Your task to perform on an android device: turn off javascript in the chrome app Image 0: 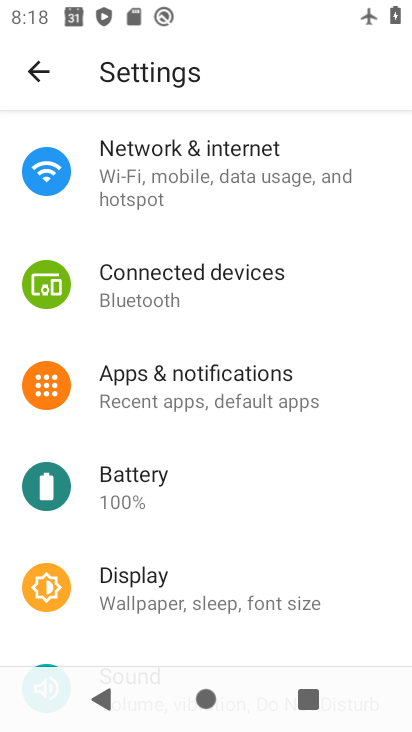
Step 0: press home button
Your task to perform on an android device: turn off javascript in the chrome app Image 1: 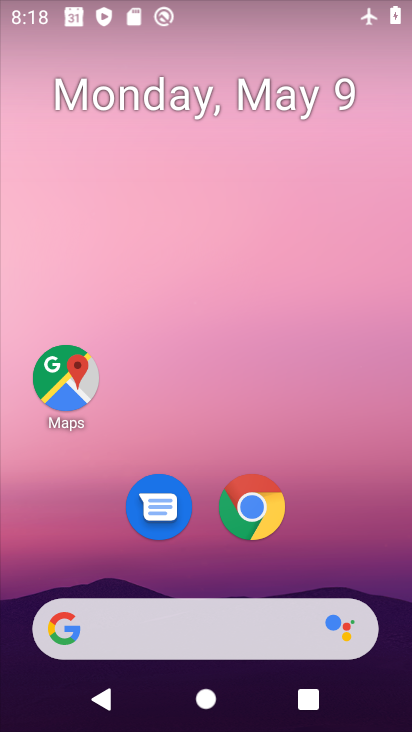
Step 1: drag from (209, 589) to (215, 46)
Your task to perform on an android device: turn off javascript in the chrome app Image 2: 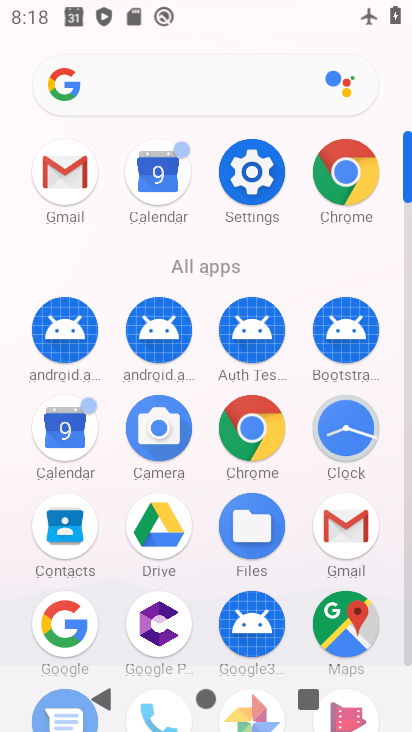
Step 2: click (335, 173)
Your task to perform on an android device: turn off javascript in the chrome app Image 3: 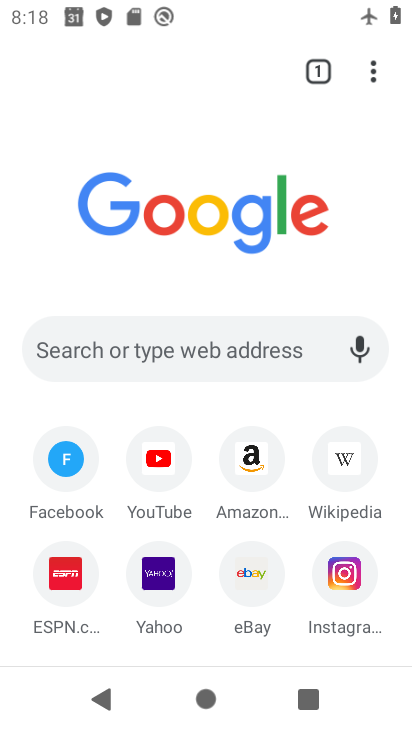
Step 3: click (364, 78)
Your task to perform on an android device: turn off javascript in the chrome app Image 4: 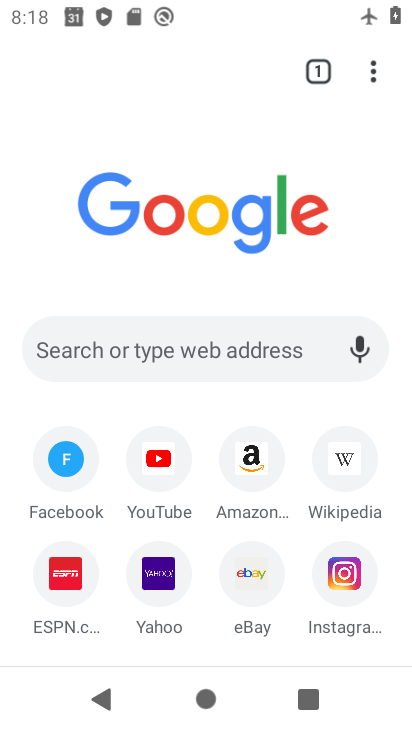
Step 4: drag from (363, 81) to (134, 495)
Your task to perform on an android device: turn off javascript in the chrome app Image 5: 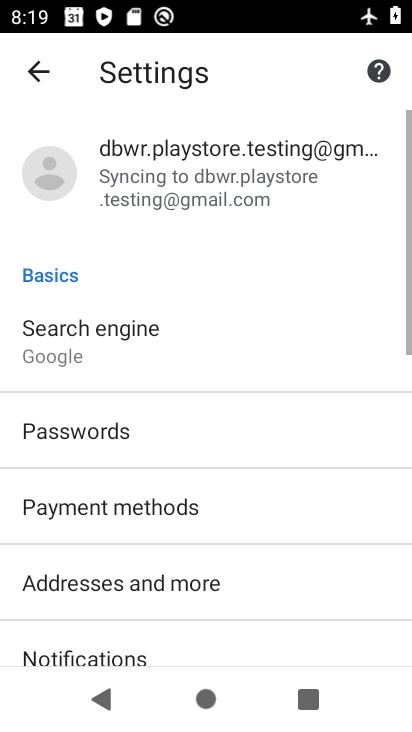
Step 5: drag from (137, 524) to (139, 247)
Your task to perform on an android device: turn off javascript in the chrome app Image 6: 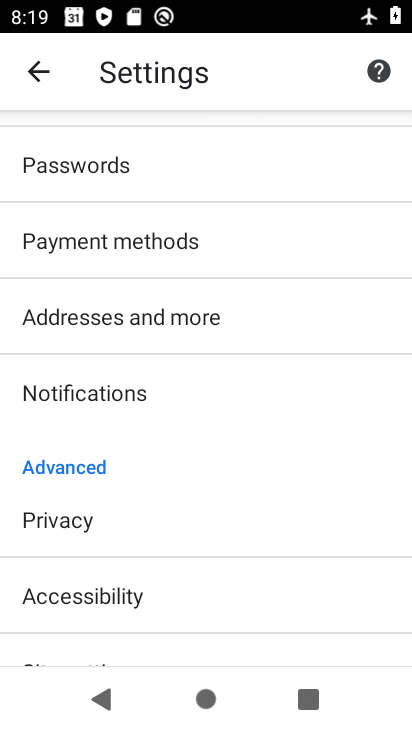
Step 6: drag from (119, 595) to (126, 333)
Your task to perform on an android device: turn off javascript in the chrome app Image 7: 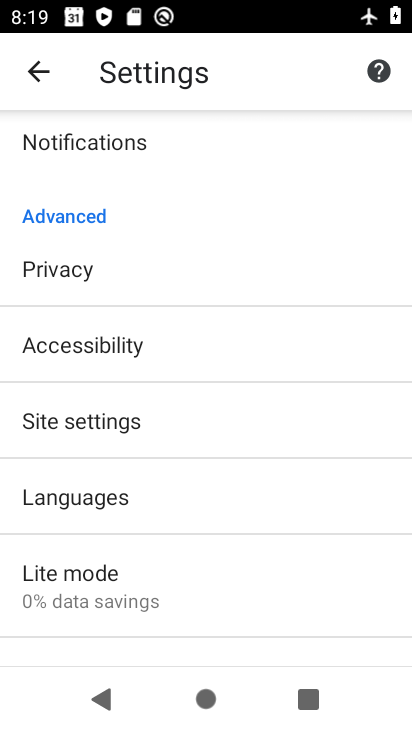
Step 7: click (123, 418)
Your task to perform on an android device: turn off javascript in the chrome app Image 8: 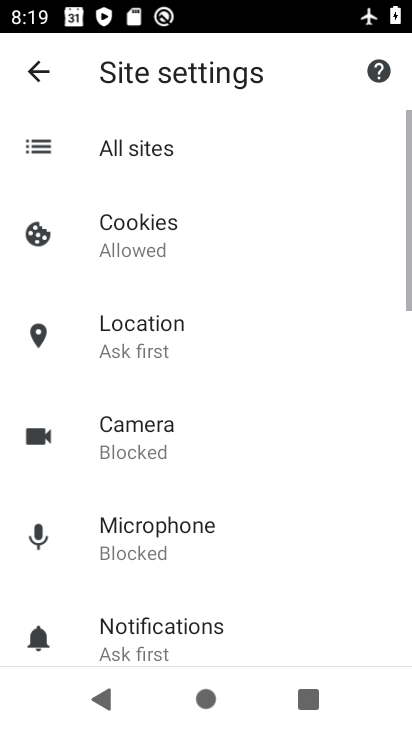
Step 8: drag from (182, 488) to (148, 112)
Your task to perform on an android device: turn off javascript in the chrome app Image 9: 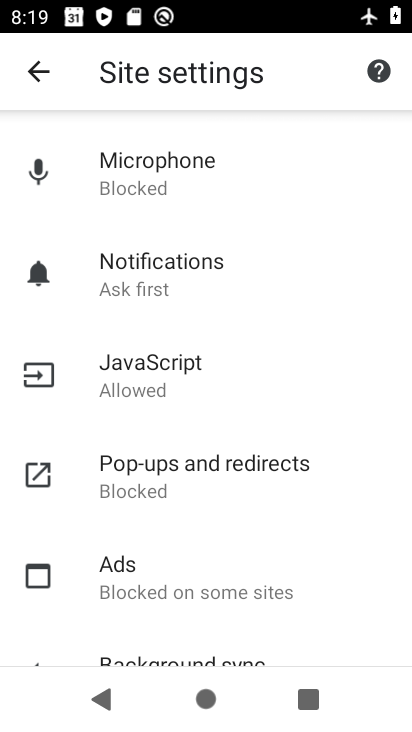
Step 9: click (183, 387)
Your task to perform on an android device: turn off javascript in the chrome app Image 10: 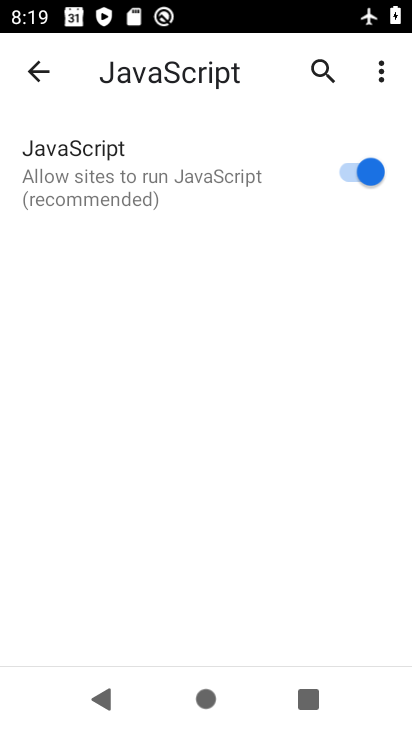
Step 10: click (362, 170)
Your task to perform on an android device: turn off javascript in the chrome app Image 11: 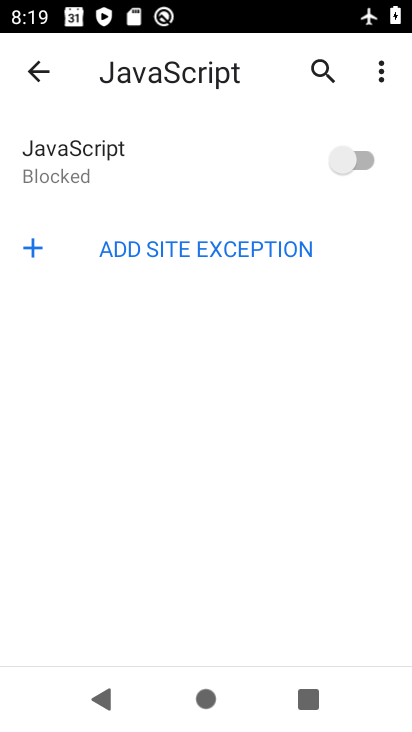
Step 11: task complete